Your task to perform on an android device: Go to accessibility settings Image 0: 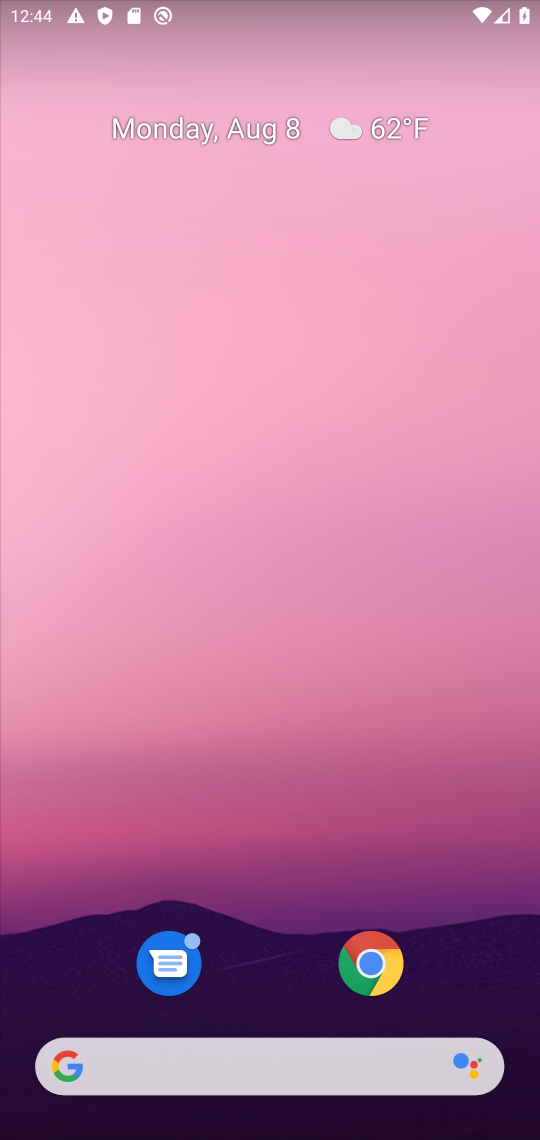
Step 0: drag from (476, 844) to (261, 130)
Your task to perform on an android device: Go to accessibility settings Image 1: 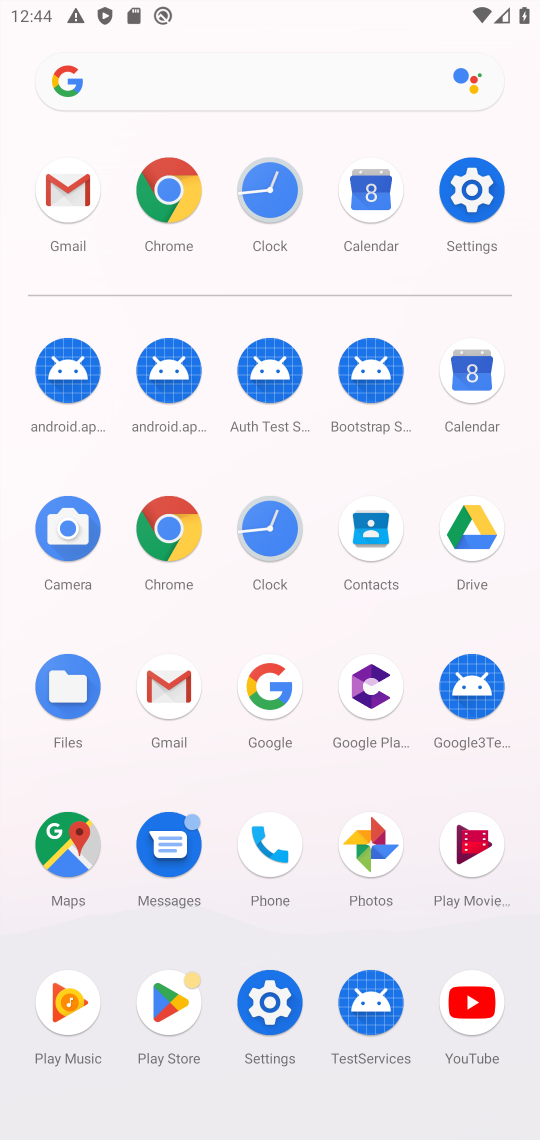
Step 1: click (454, 230)
Your task to perform on an android device: Go to accessibility settings Image 2: 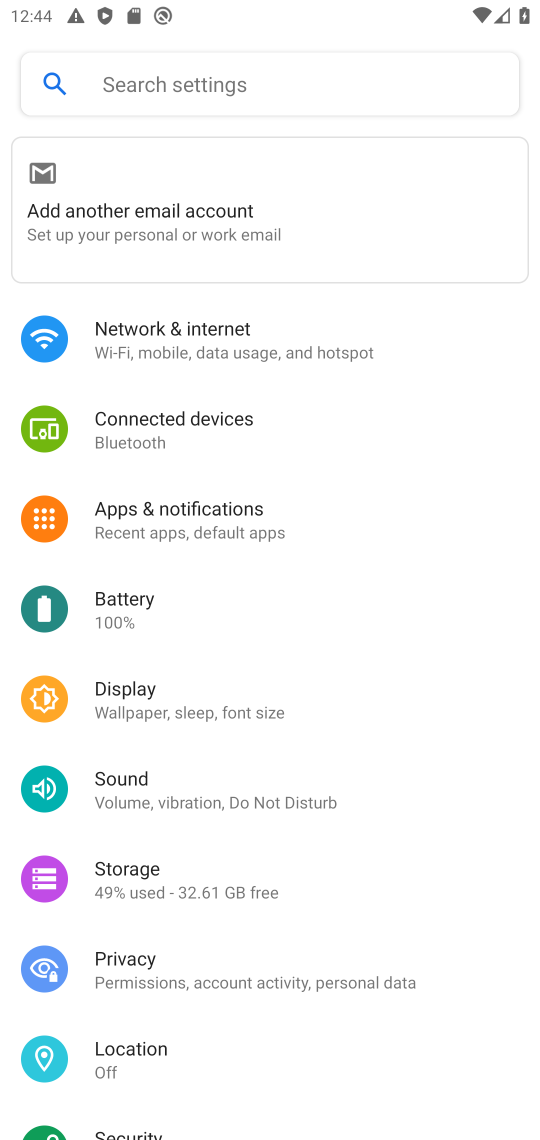
Step 2: drag from (267, 1000) to (282, 110)
Your task to perform on an android device: Go to accessibility settings Image 3: 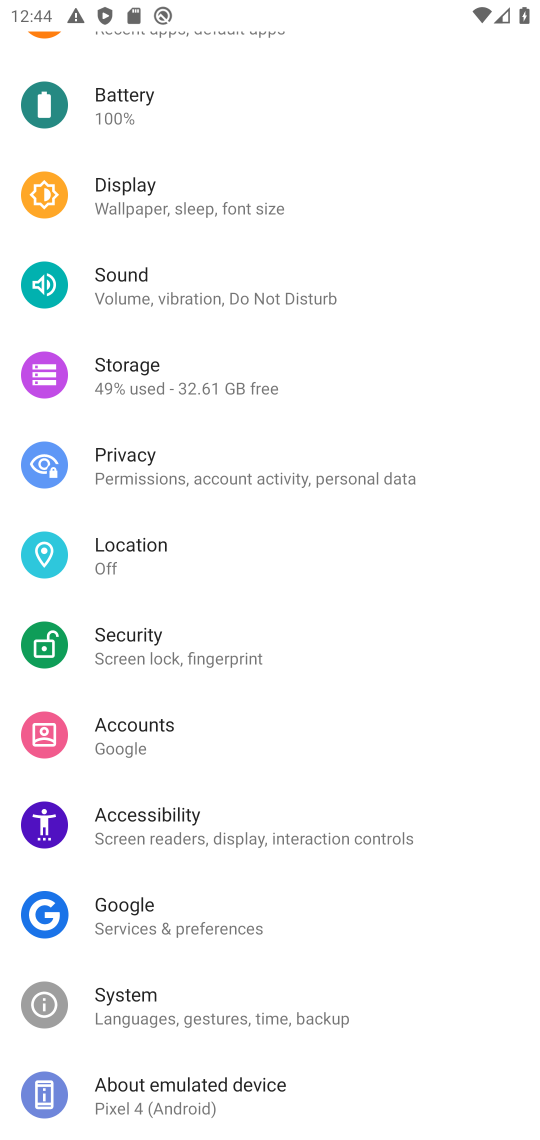
Step 3: click (169, 797)
Your task to perform on an android device: Go to accessibility settings Image 4: 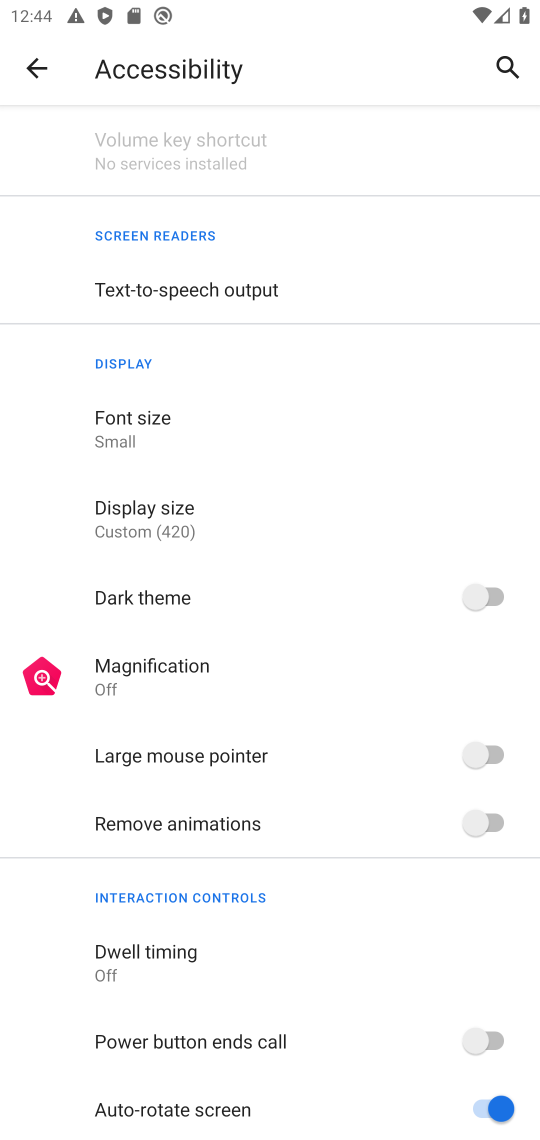
Step 4: task complete